Your task to perform on an android device: Open calendar and show me the fourth week of next month Image 0: 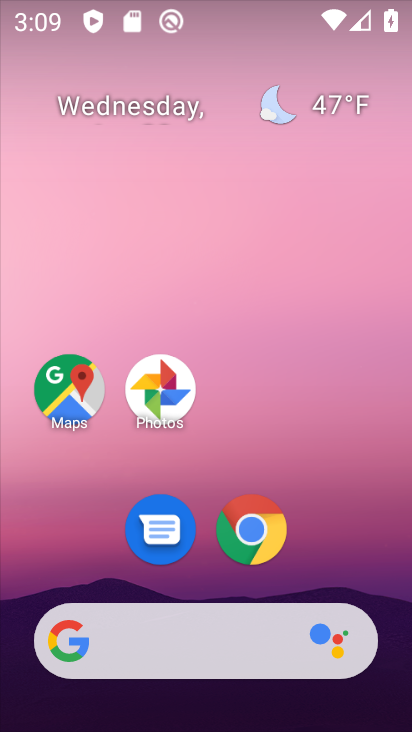
Step 0: drag from (192, 486) to (217, 164)
Your task to perform on an android device: Open calendar and show me the fourth week of next month Image 1: 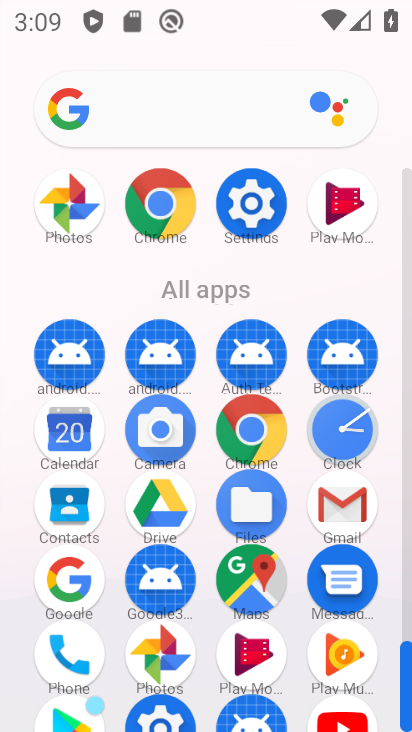
Step 1: click (69, 426)
Your task to perform on an android device: Open calendar and show me the fourth week of next month Image 2: 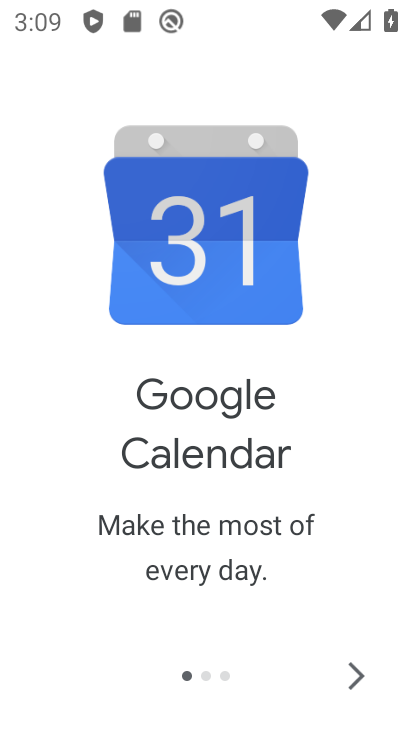
Step 2: click (359, 678)
Your task to perform on an android device: Open calendar and show me the fourth week of next month Image 3: 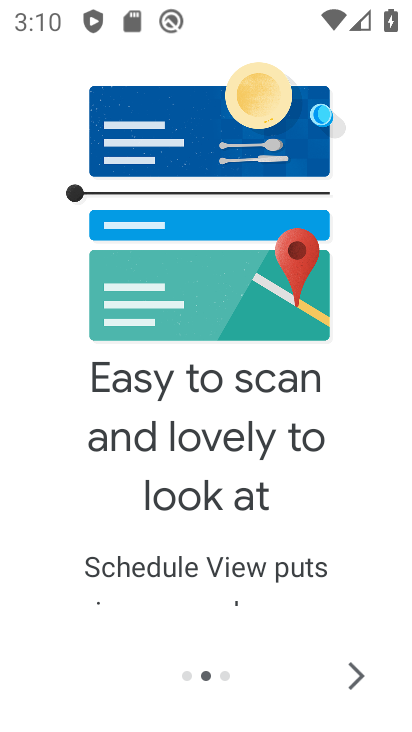
Step 3: click (359, 678)
Your task to perform on an android device: Open calendar and show me the fourth week of next month Image 4: 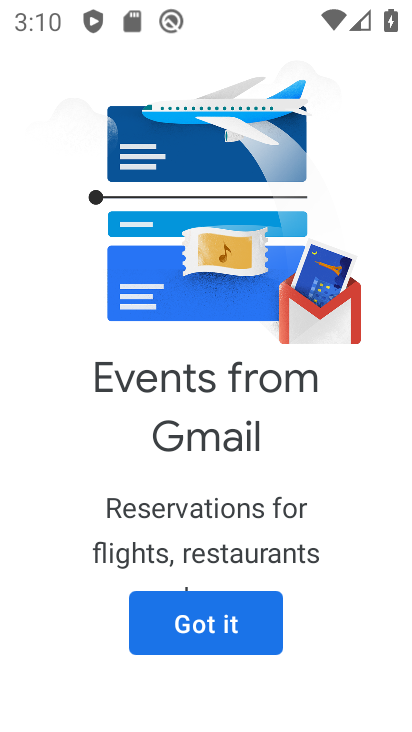
Step 4: click (360, 676)
Your task to perform on an android device: Open calendar and show me the fourth week of next month Image 5: 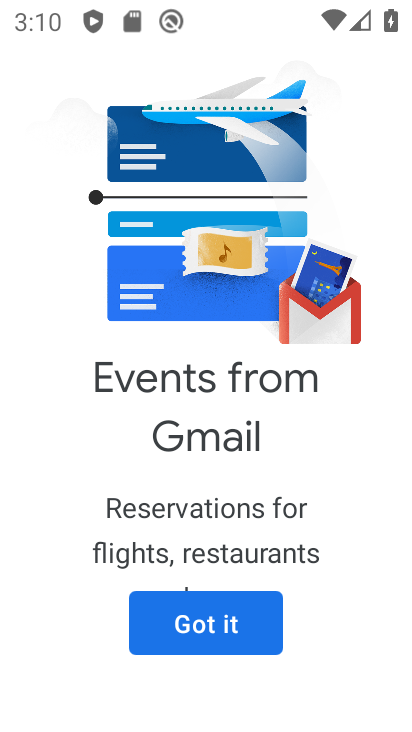
Step 5: click (214, 644)
Your task to perform on an android device: Open calendar and show me the fourth week of next month Image 6: 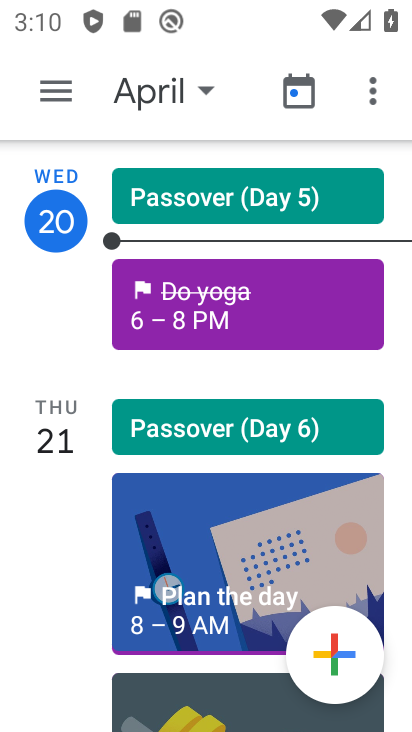
Step 6: click (189, 100)
Your task to perform on an android device: Open calendar and show me the fourth week of next month Image 7: 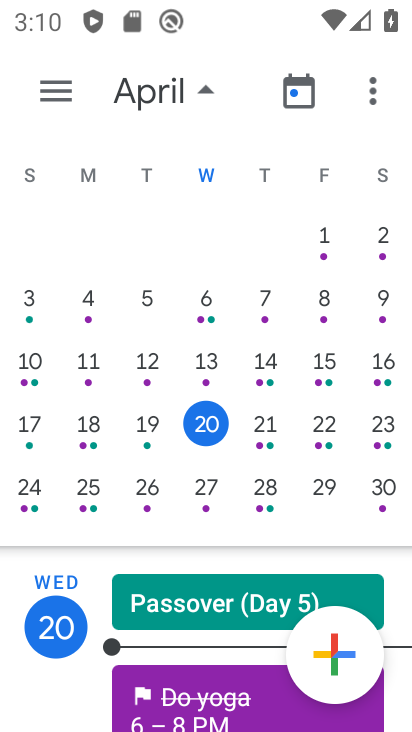
Step 7: click (178, 92)
Your task to perform on an android device: Open calendar and show me the fourth week of next month Image 8: 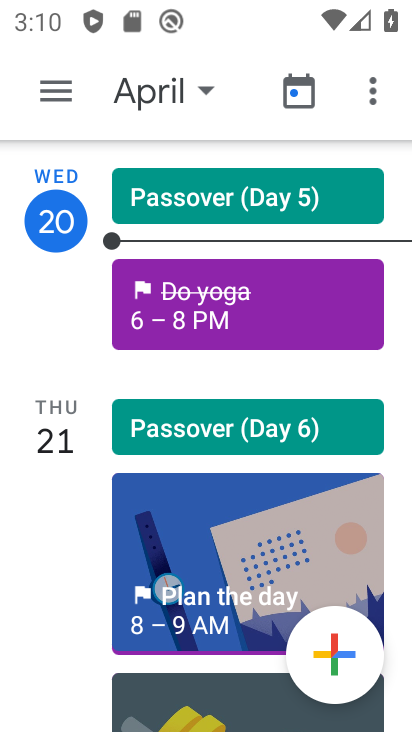
Step 8: click (190, 87)
Your task to perform on an android device: Open calendar and show me the fourth week of next month Image 9: 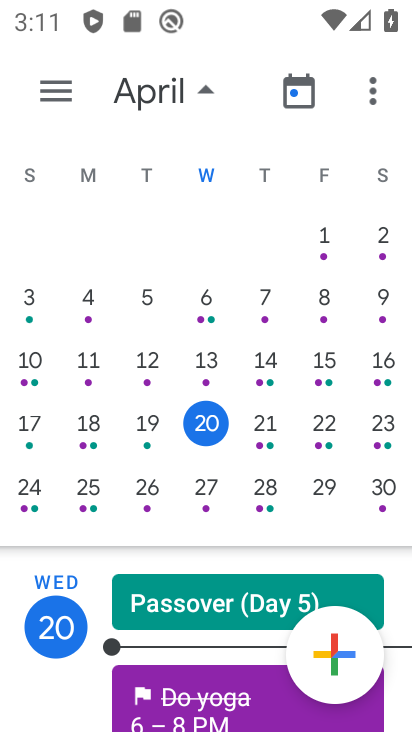
Step 9: drag from (354, 357) to (75, 310)
Your task to perform on an android device: Open calendar and show me the fourth week of next month Image 10: 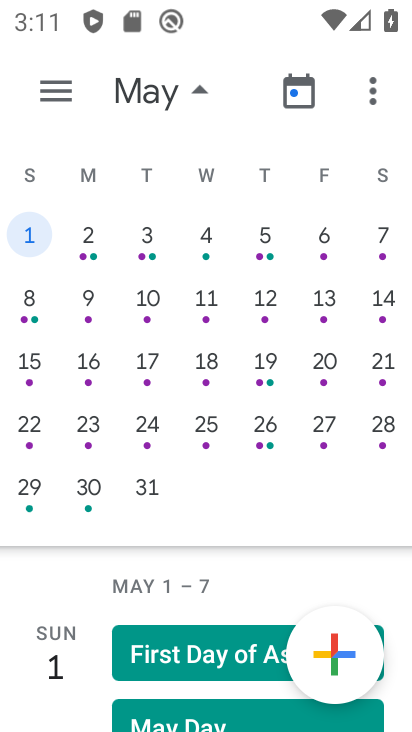
Step 10: click (210, 427)
Your task to perform on an android device: Open calendar and show me the fourth week of next month Image 11: 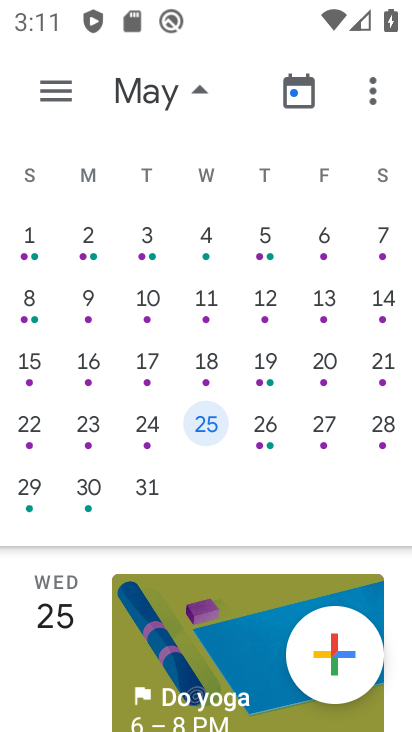
Step 11: click (58, 91)
Your task to perform on an android device: Open calendar and show me the fourth week of next month Image 12: 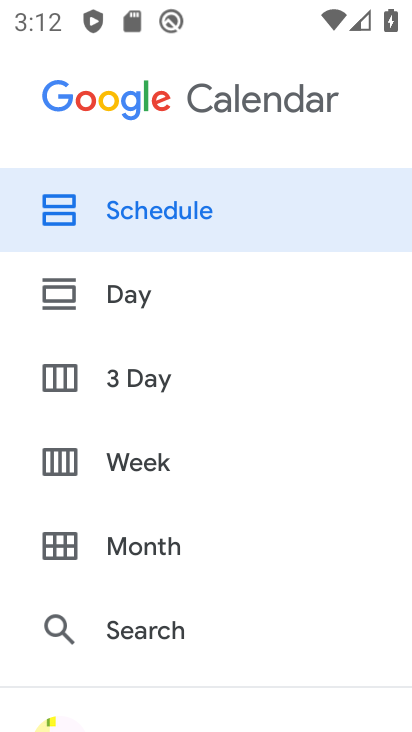
Step 12: click (179, 461)
Your task to perform on an android device: Open calendar and show me the fourth week of next month Image 13: 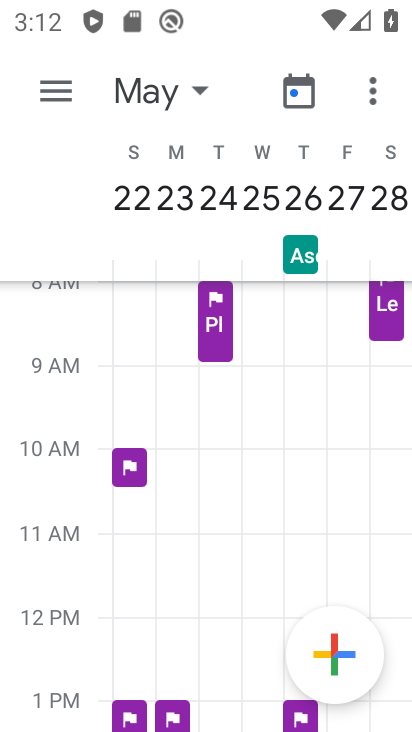
Step 13: task complete